Your task to perform on an android device: Go to internet settings Image 0: 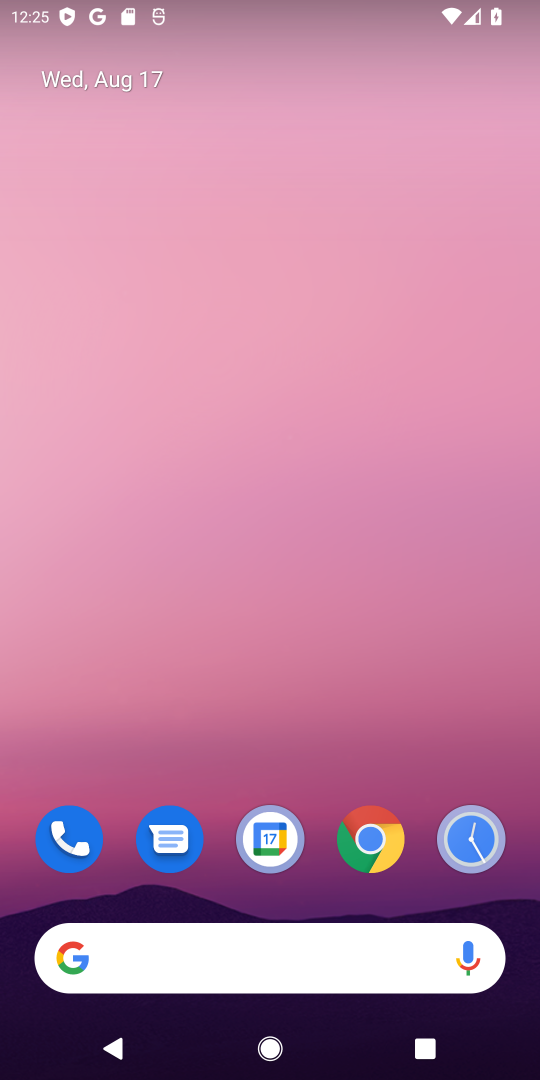
Step 0: drag from (268, 962) to (328, 299)
Your task to perform on an android device: Go to internet settings Image 1: 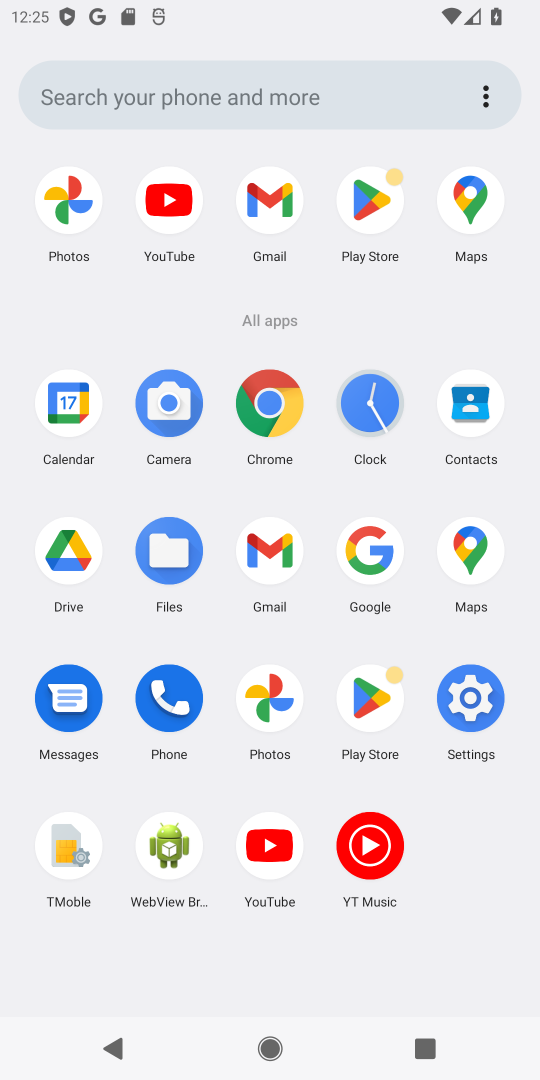
Step 1: click (467, 698)
Your task to perform on an android device: Go to internet settings Image 2: 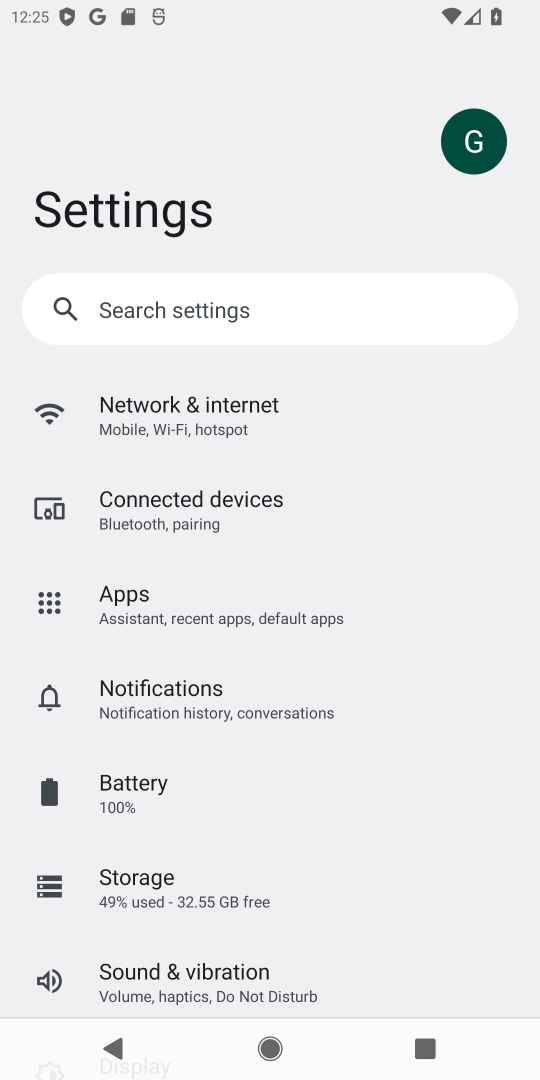
Step 2: click (209, 425)
Your task to perform on an android device: Go to internet settings Image 3: 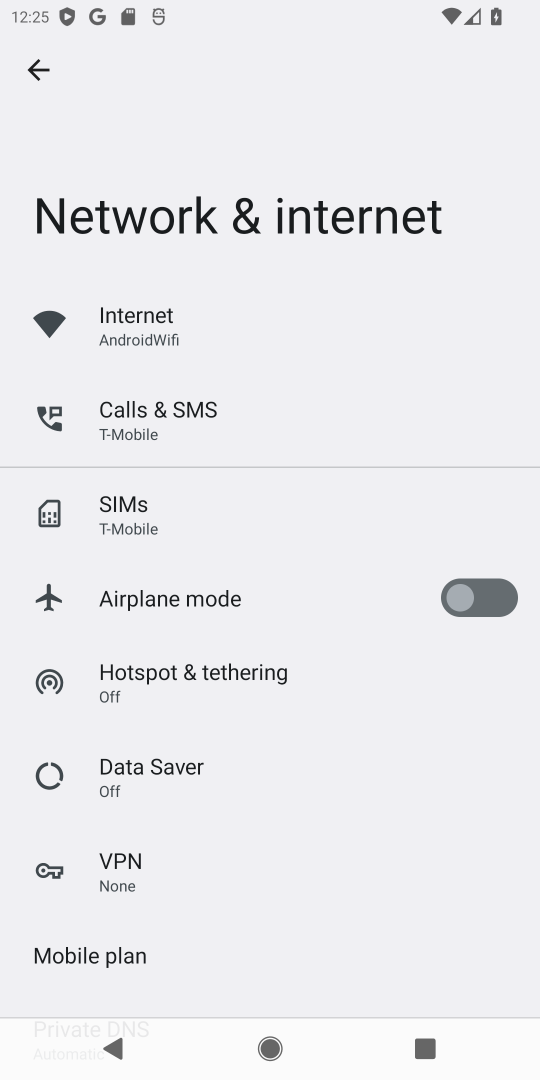
Step 3: click (130, 334)
Your task to perform on an android device: Go to internet settings Image 4: 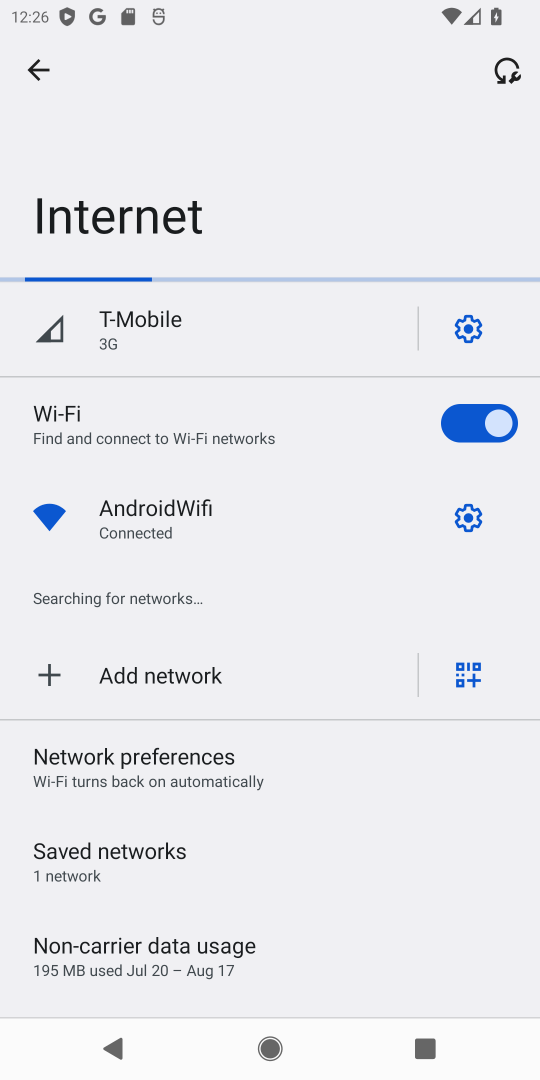
Step 4: task complete